Your task to perform on an android device: Show me the alarms in the clock app Image 0: 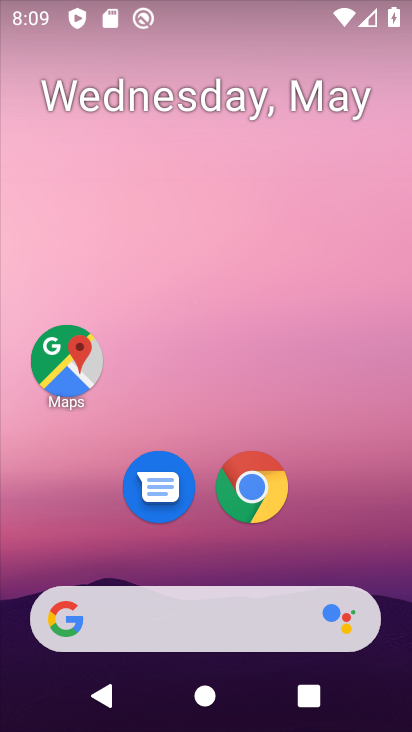
Step 0: drag from (194, 557) to (186, 198)
Your task to perform on an android device: Show me the alarms in the clock app Image 1: 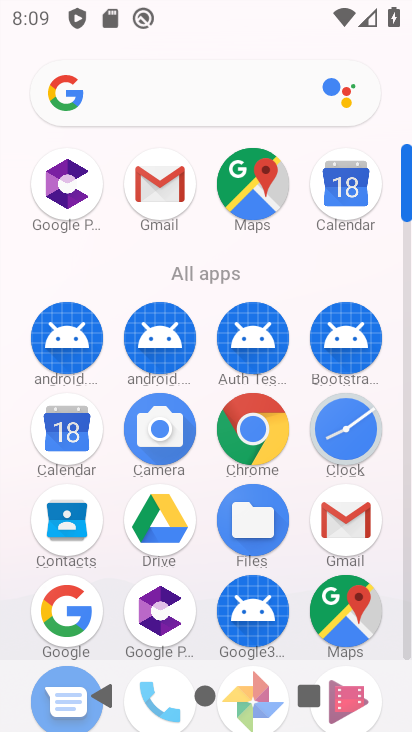
Step 1: click (342, 417)
Your task to perform on an android device: Show me the alarms in the clock app Image 2: 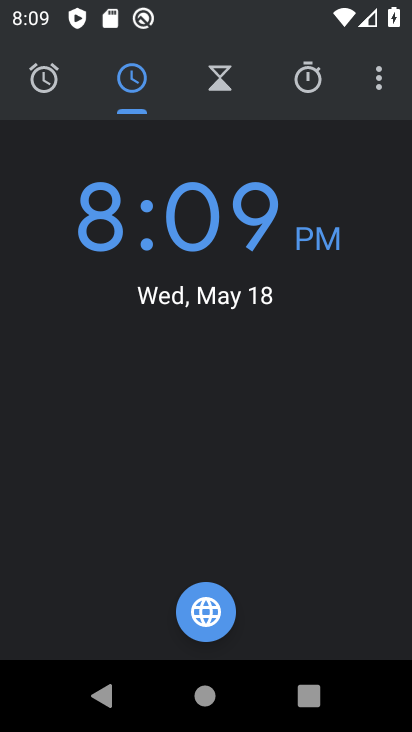
Step 2: click (30, 82)
Your task to perform on an android device: Show me the alarms in the clock app Image 3: 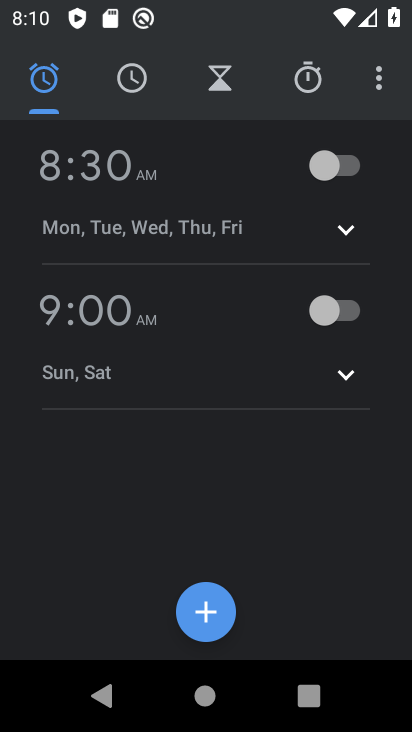
Step 3: task complete